Your task to perform on an android device: Go to Amazon Image 0: 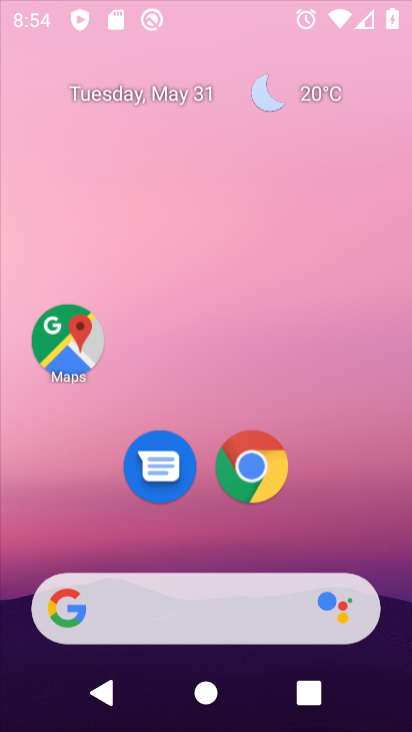
Step 0: click (238, 18)
Your task to perform on an android device: Go to Amazon Image 1: 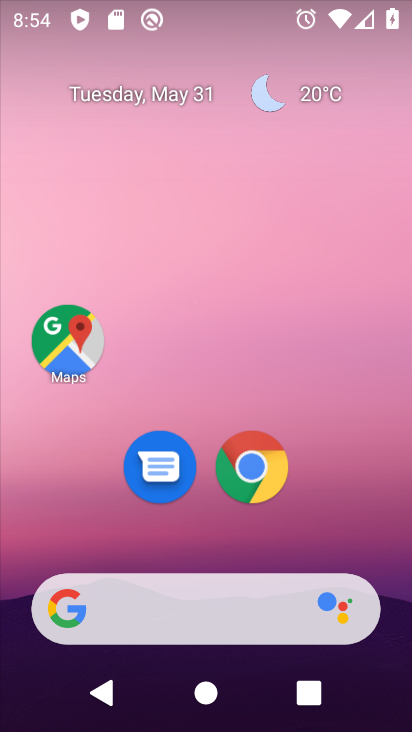
Step 1: drag from (202, 522) to (396, 89)
Your task to perform on an android device: Go to Amazon Image 2: 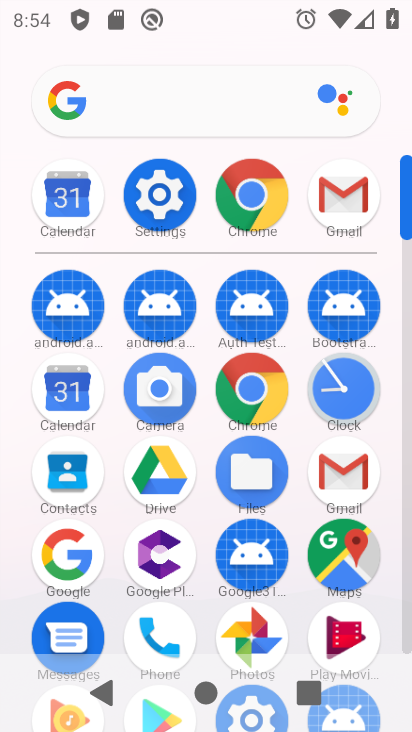
Step 2: click (166, 102)
Your task to perform on an android device: Go to Amazon Image 3: 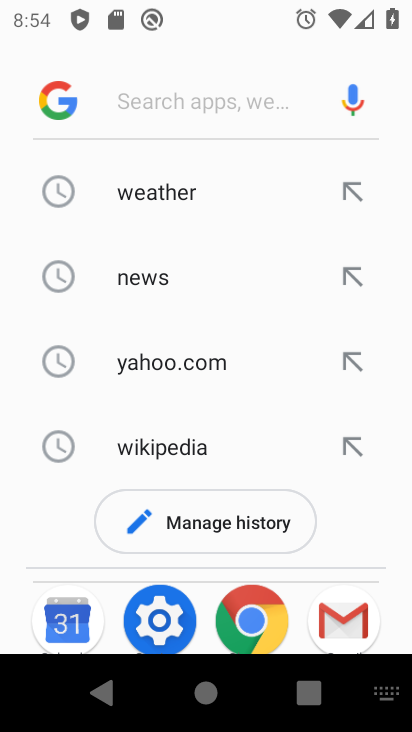
Step 3: click (166, 115)
Your task to perform on an android device: Go to Amazon Image 4: 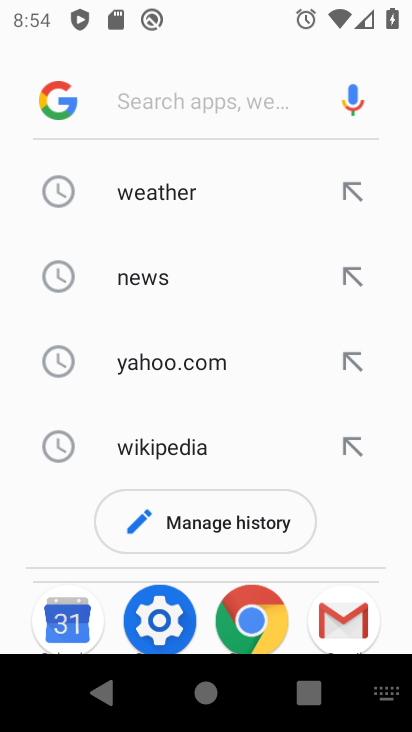
Step 4: type "Amazon"
Your task to perform on an android device: Go to Amazon Image 5: 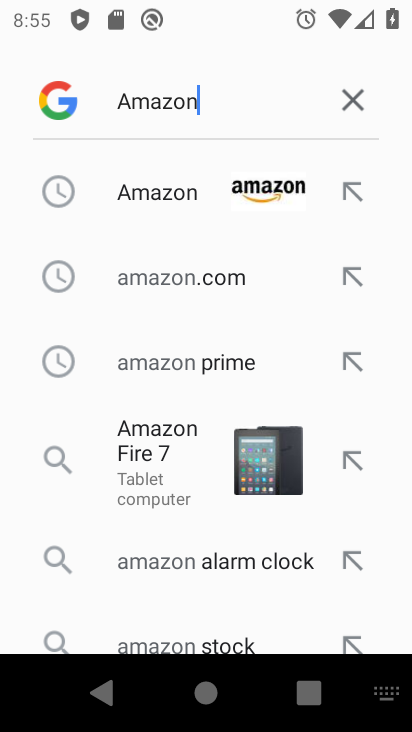
Step 5: click (201, 231)
Your task to perform on an android device: Go to Amazon Image 6: 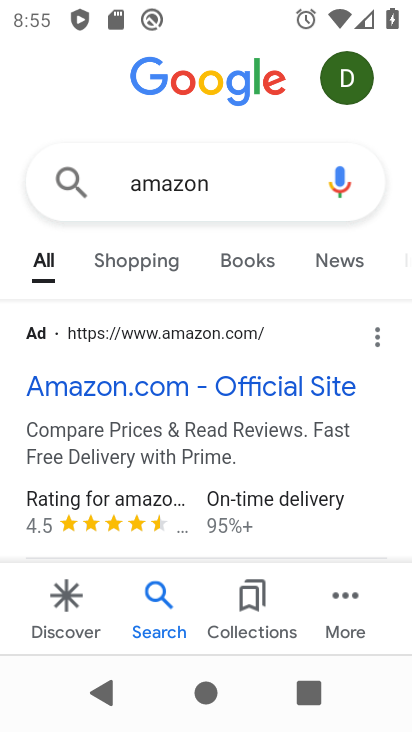
Step 6: drag from (146, 522) to (207, 267)
Your task to perform on an android device: Go to Amazon Image 7: 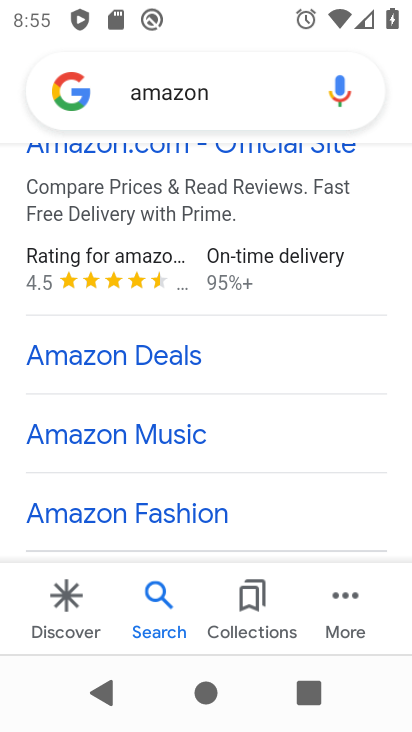
Step 7: click (232, 155)
Your task to perform on an android device: Go to Amazon Image 8: 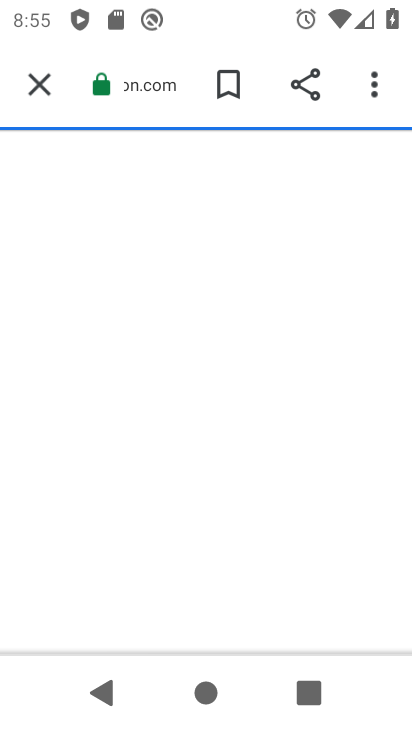
Step 8: task complete